Your task to perform on an android device: Go to settings Image 0: 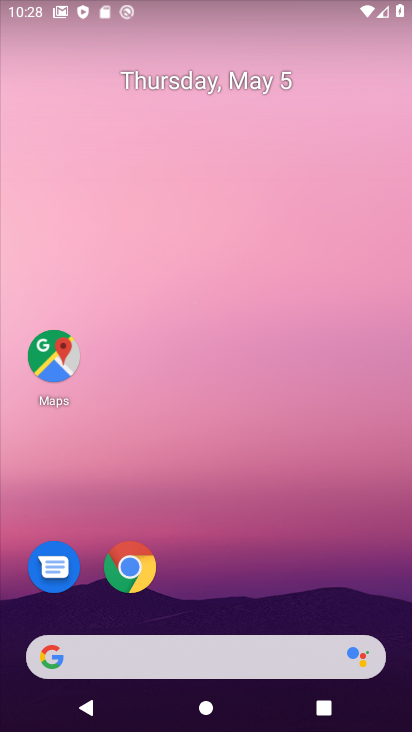
Step 0: drag from (228, 589) to (333, 17)
Your task to perform on an android device: Go to settings Image 1: 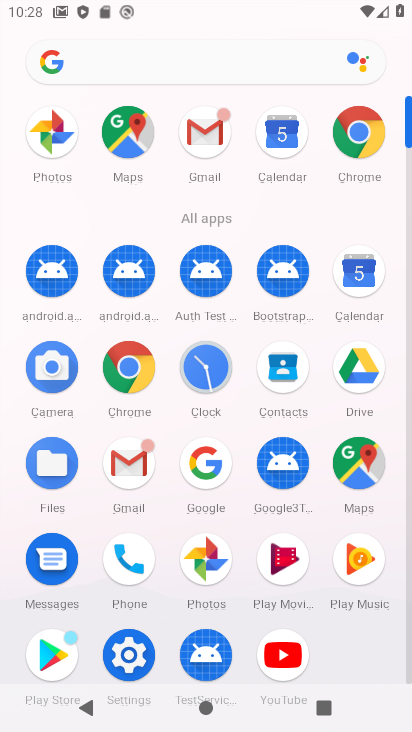
Step 1: click (130, 656)
Your task to perform on an android device: Go to settings Image 2: 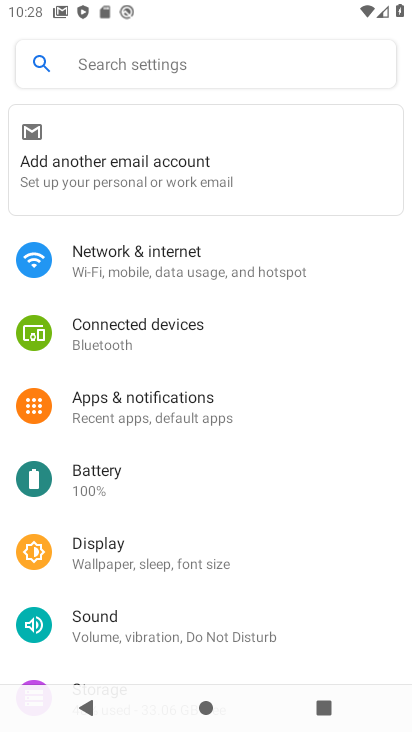
Step 2: task complete